Your task to perform on an android device: turn on javascript in the chrome app Image 0: 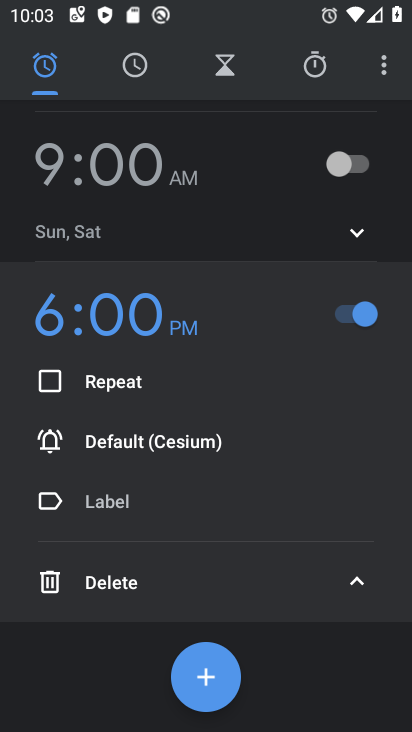
Step 0: press home button
Your task to perform on an android device: turn on javascript in the chrome app Image 1: 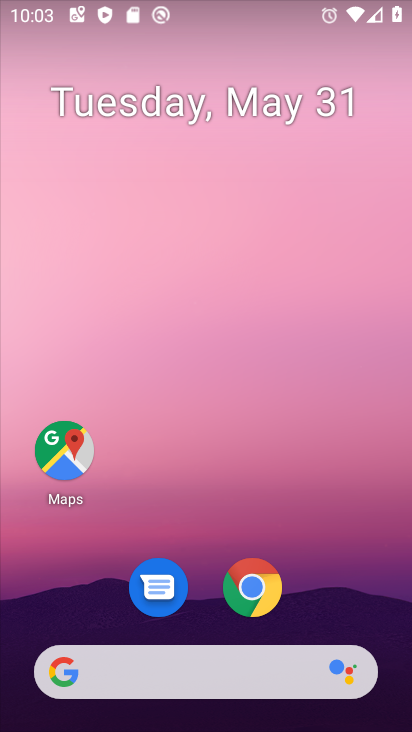
Step 1: drag from (378, 610) to (390, 288)
Your task to perform on an android device: turn on javascript in the chrome app Image 2: 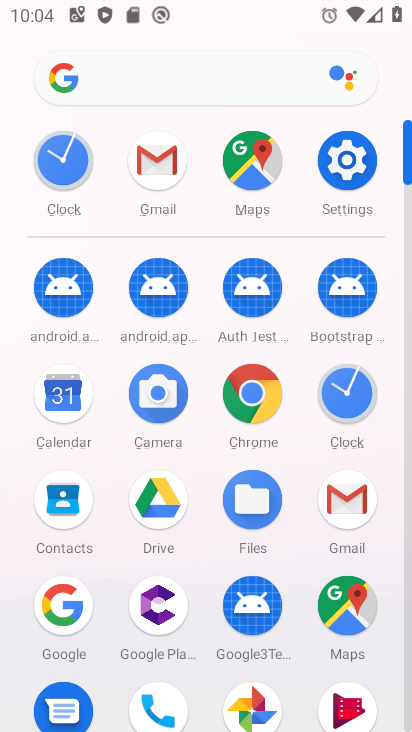
Step 2: click (266, 398)
Your task to perform on an android device: turn on javascript in the chrome app Image 3: 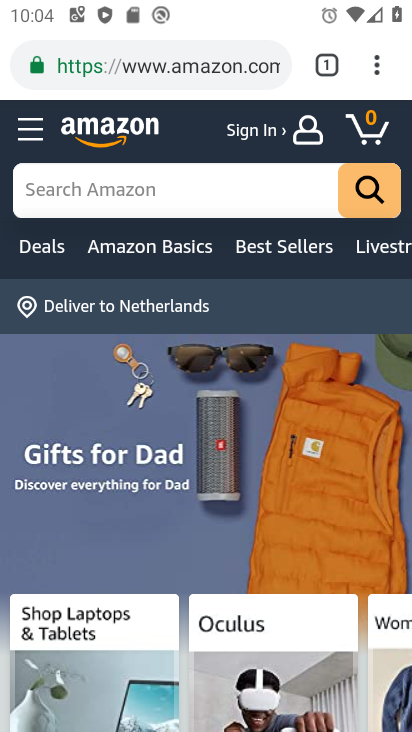
Step 3: click (379, 73)
Your task to perform on an android device: turn on javascript in the chrome app Image 4: 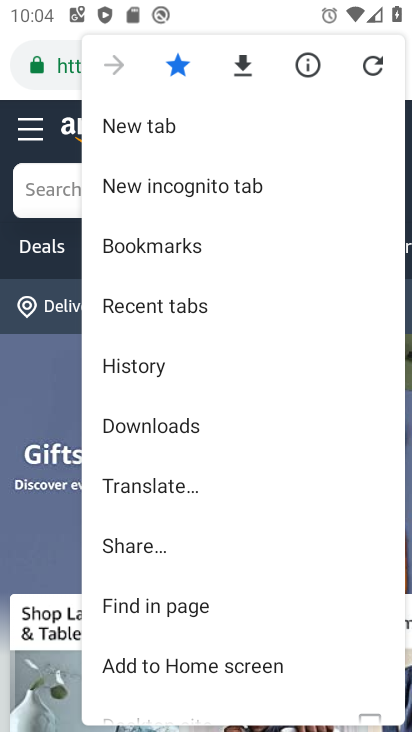
Step 4: drag from (293, 492) to (320, 407)
Your task to perform on an android device: turn on javascript in the chrome app Image 5: 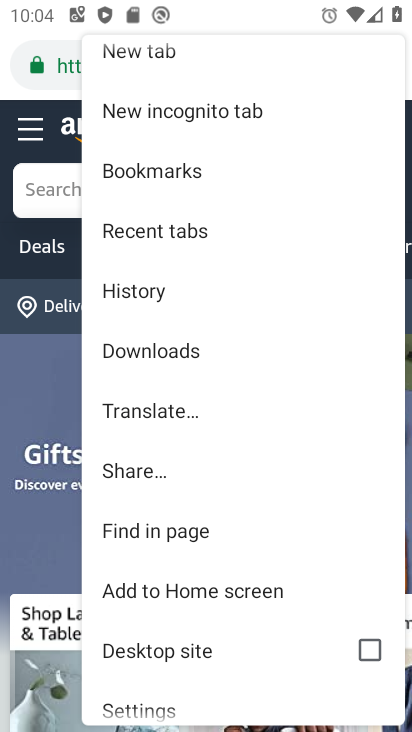
Step 5: drag from (325, 526) to (326, 382)
Your task to perform on an android device: turn on javascript in the chrome app Image 6: 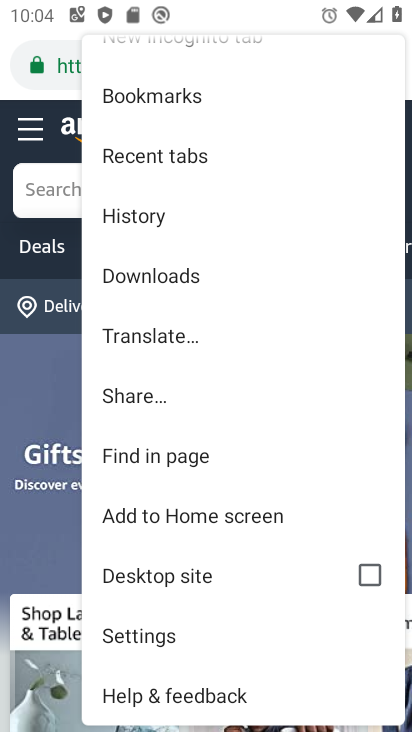
Step 6: click (163, 646)
Your task to perform on an android device: turn on javascript in the chrome app Image 7: 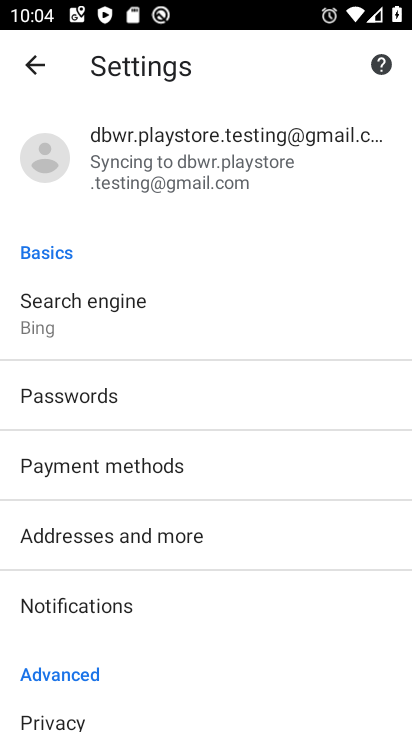
Step 7: drag from (278, 562) to (288, 441)
Your task to perform on an android device: turn on javascript in the chrome app Image 8: 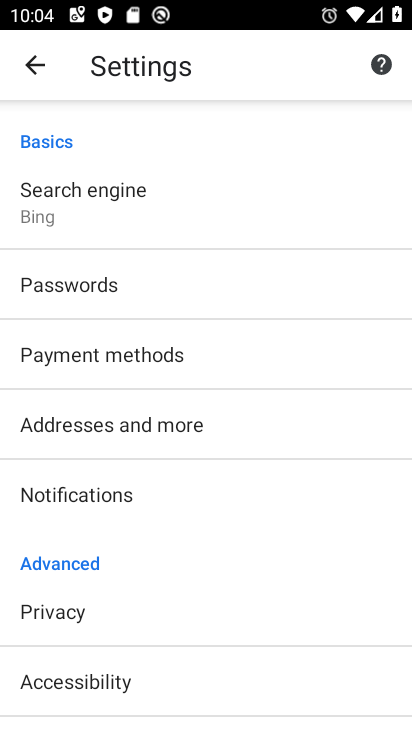
Step 8: drag from (299, 261) to (281, 401)
Your task to perform on an android device: turn on javascript in the chrome app Image 9: 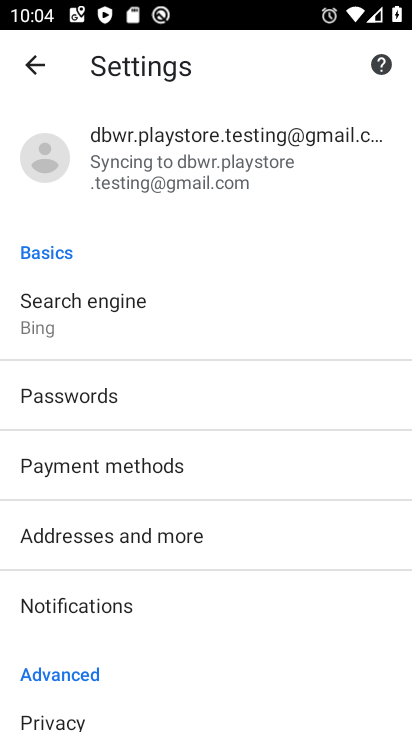
Step 9: drag from (278, 497) to (291, 349)
Your task to perform on an android device: turn on javascript in the chrome app Image 10: 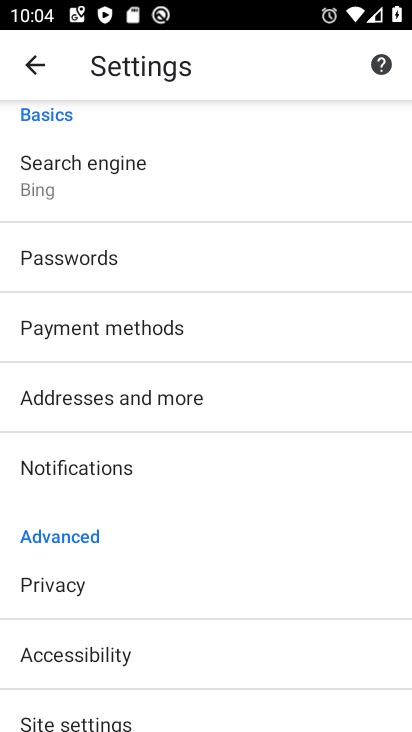
Step 10: drag from (313, 499) to (315, 426)
Your task to perform on an android device: turn on javascript in the chrome app Image 11: 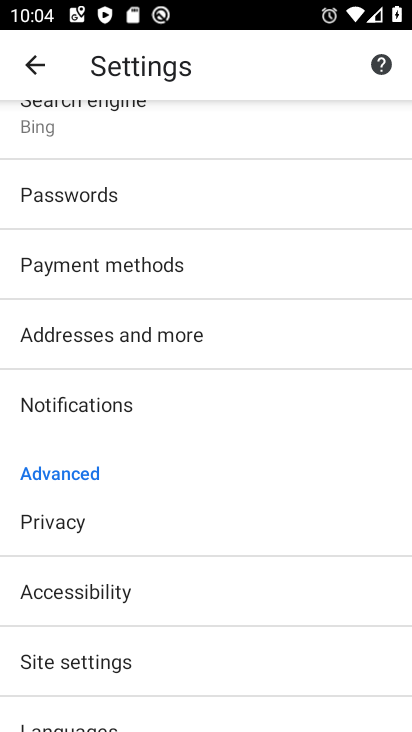
Step 11: drag from (323, 518) to (314, 423)
Your task to perform on an android device: turn on javascript in the chrome app Image 12: 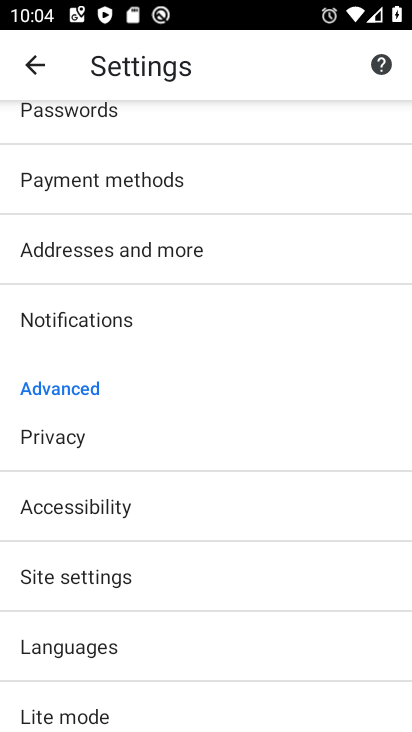
Step 12: drag from (312, 548) to (316, 367)
Your task to perform on an android device: turn on javascript in the chrome app Image 13: 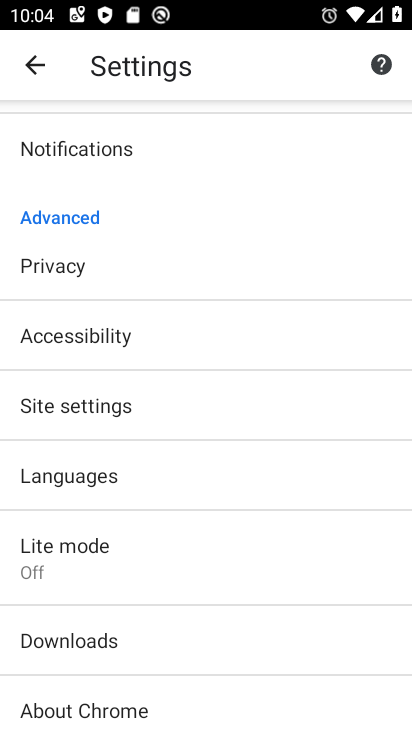
Step 13: click (275, 413)
Your task to perform on an android device: turn on javascript in the chrome app Image 14: 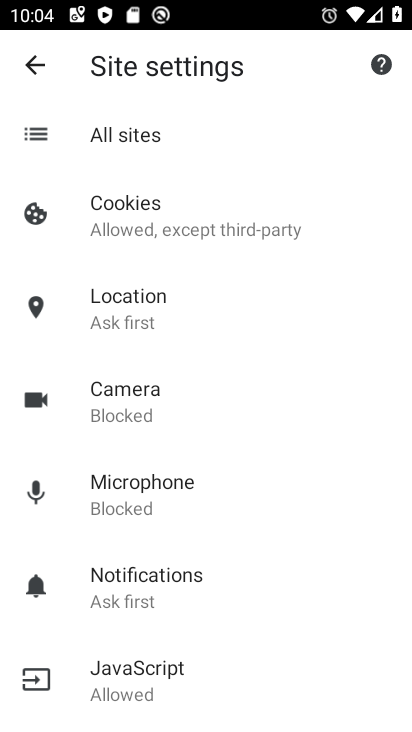
Step 14: drag from (298, 495) to (318, 391)
Your task to perform on an android device: turn on javascript in the chrome app Image 15: 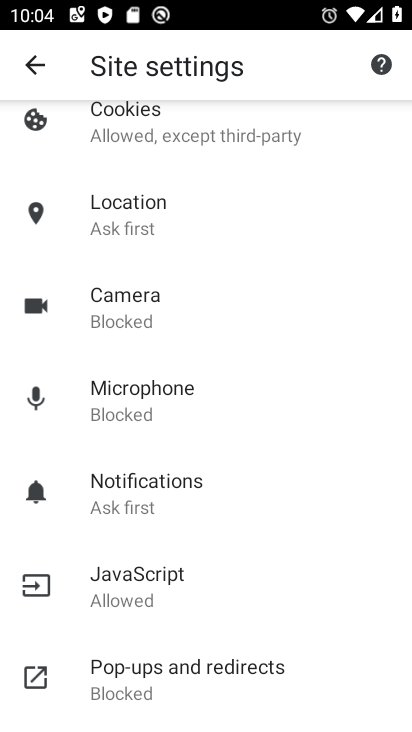
Step 15: drag from (317, 549) to (331, 358)
Your task to perform on an android device: turn on javascript in the chrome app Image 16: 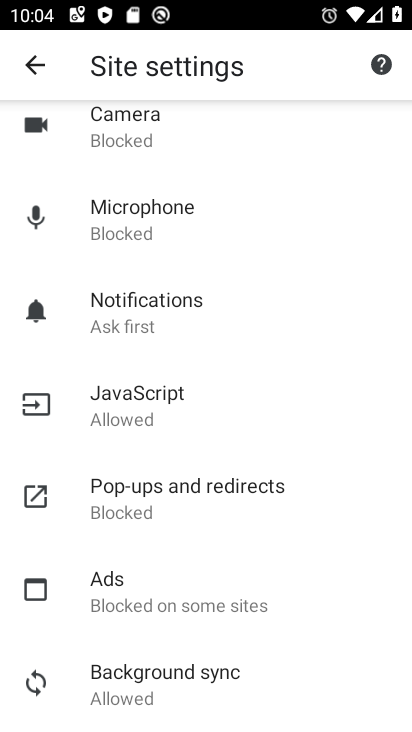
Step 16: click (187, 425)
Your task to perform on an android device: turn on javascript in the chrome app Image 17: 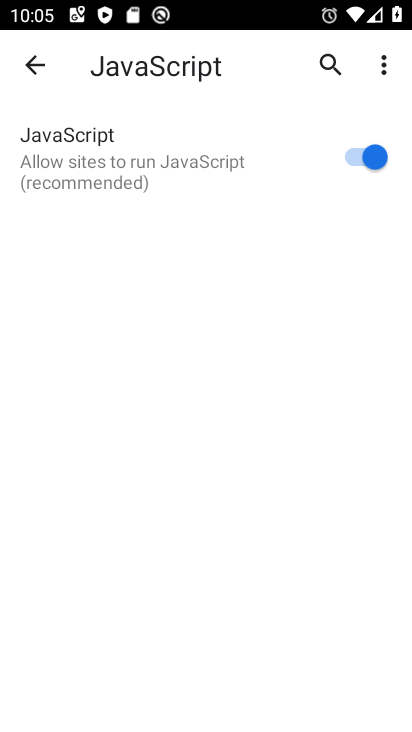
Step 17: task complete